Your task to perform on an android device: choose inbox layout in the gmail app Image 0: 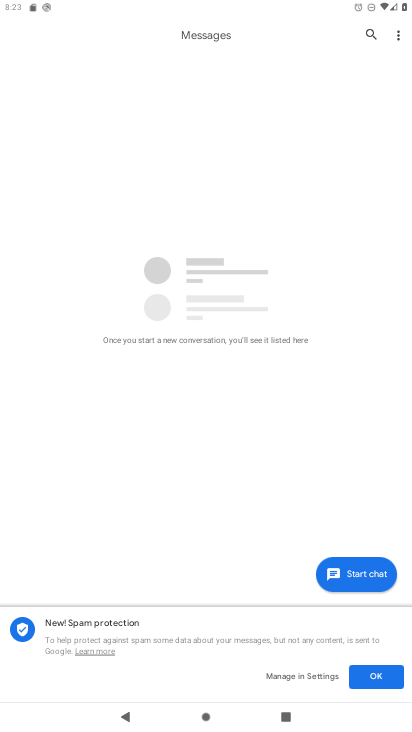
Step 0: press home button
Your task to perform on an android device: choose inbox layout in the gmail app Image 1: 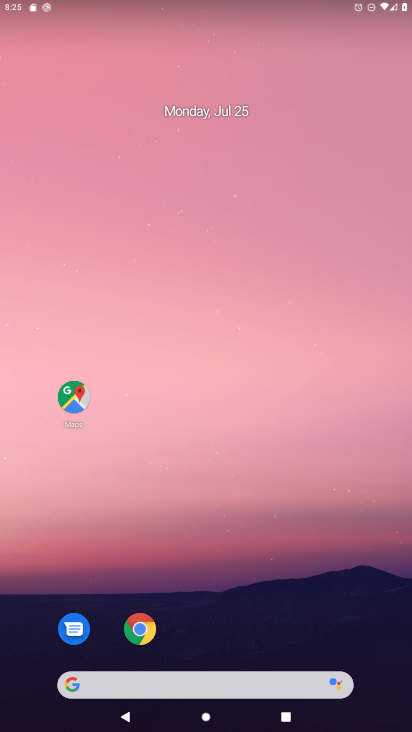
Step 1: drag from (226, 616) to (253, 36)
Your task to perform on an android device: choose inbox layout in the gmail app Image 2: 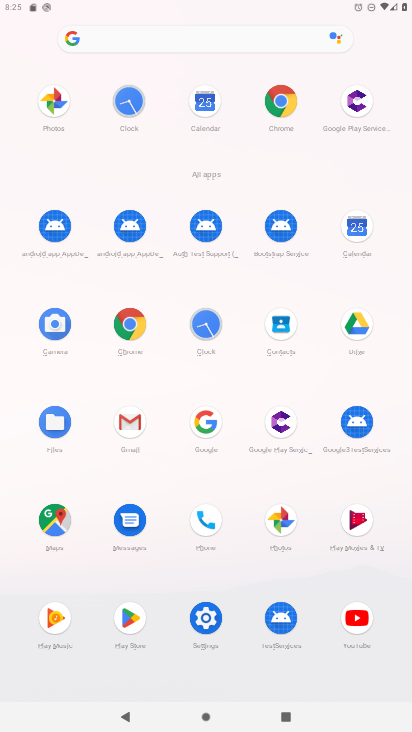
Step 2: click (128, 424)
Your task to perform on an android device: choose inbox layout in the gmail app Image 3: 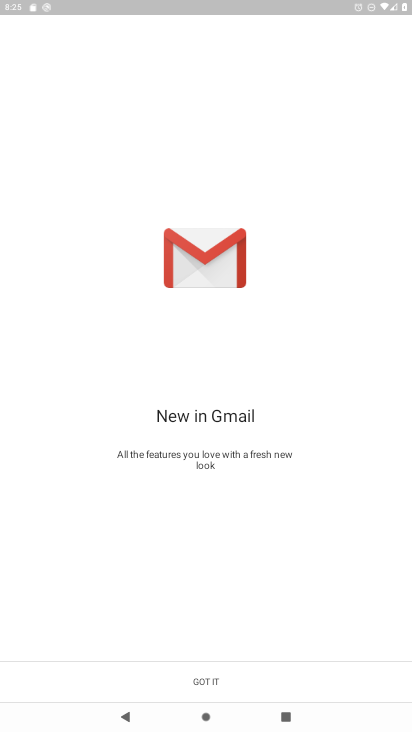
Step 3: click (203, 675)
Your task to perform on an android device: choose inbox layout in the gmail app Image 4: 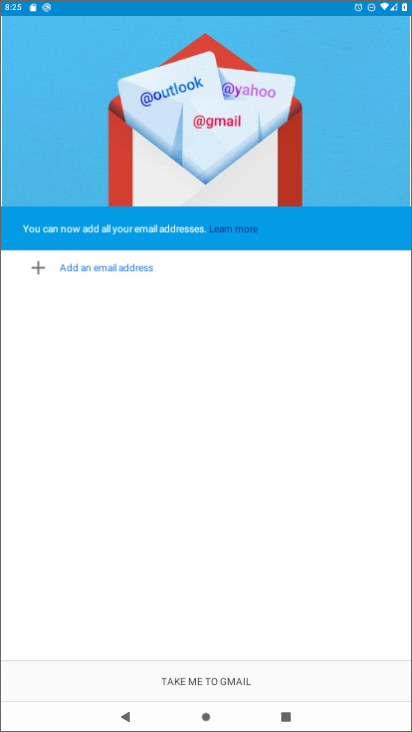
Step 4: click (203, 675)
Your task to perform on an android device: choose inbox layout in the gmail app Image 5: 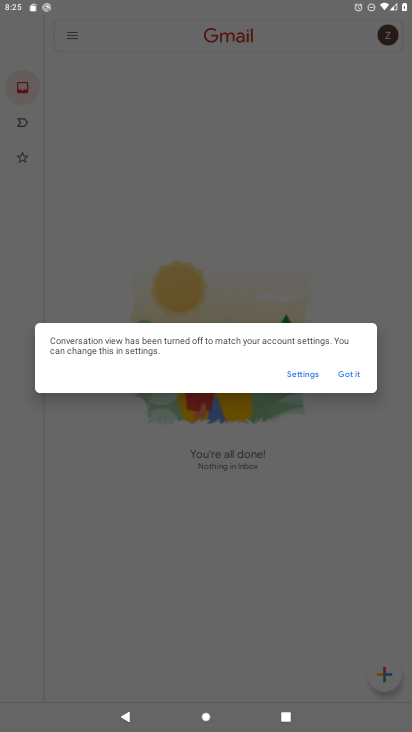
Step 5: click (63, 36)
Your task to perform on an android device: choose inbox layout in the gmail app Image 6: 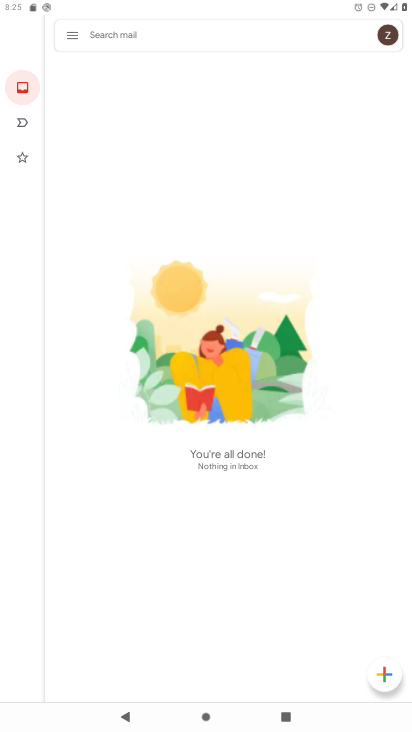
Step 6: click (67, 34)
Your task to perform on an android device: choose inbox layout in the gmail app Image 7: 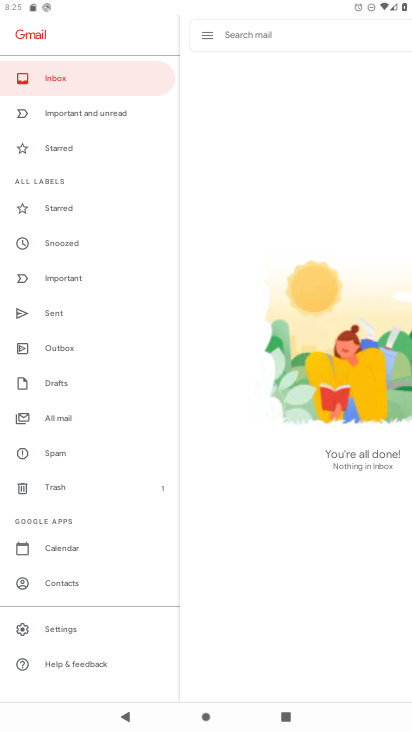
Step 7: click (53, 629)
Your task to perform on an android device: choose inbox layout in the gmail app Image 8: 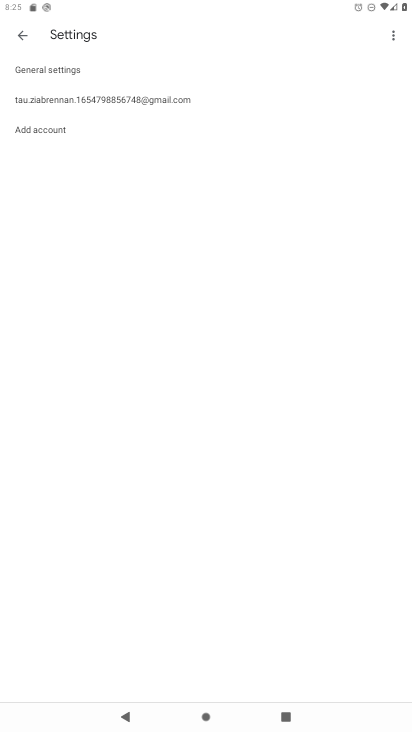
Step 8: click (111, 99)
Your task to perform on an android device: choose inbox layout in the gmail app Image 9: 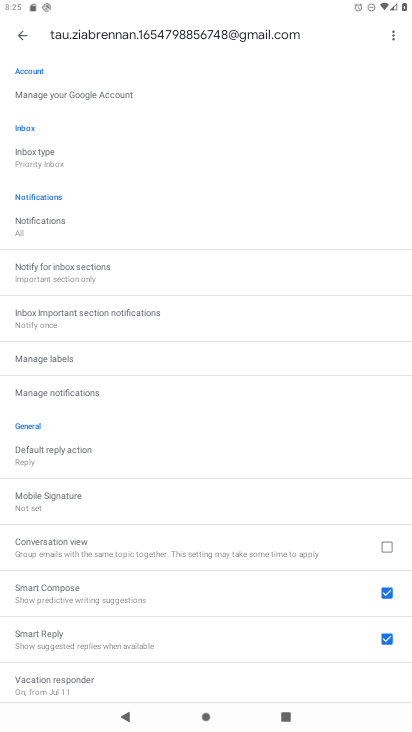
Step 9: click (42, 153)
Your task to perform on an android device: choose inbox layout in the gmail app Image 10: 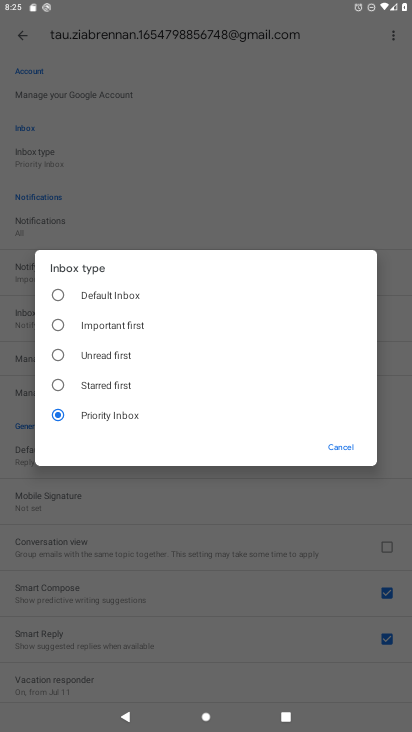
Step 10: click (106, 315)
Your task to perform on an android device: choose inbox layout in the gmail app Image 11: 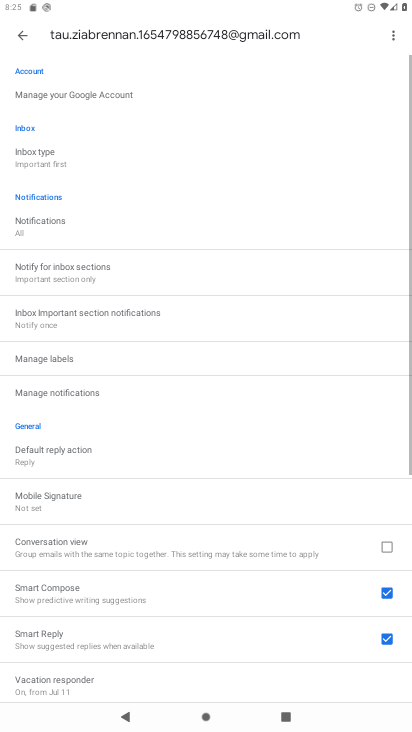
Step 11: task complete